Your task to perform on an android device: Search for pizza restaurants on Maps Image 0: 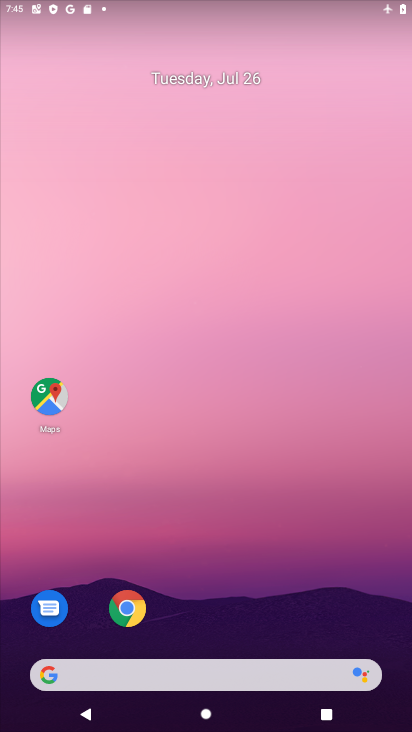
Step 0: drag from (253, 710) to (194, 385)
Your task to perform on an android device: Search for pizza restaurants on Maps Image 1: 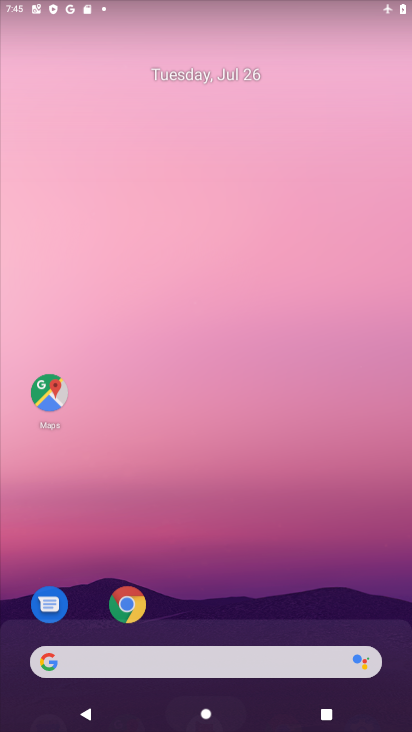
Step 1: drag from (276, 659) to (276, 285)
Your task to perform on an android device: Search for pizza restaurants on Maps Image 2: 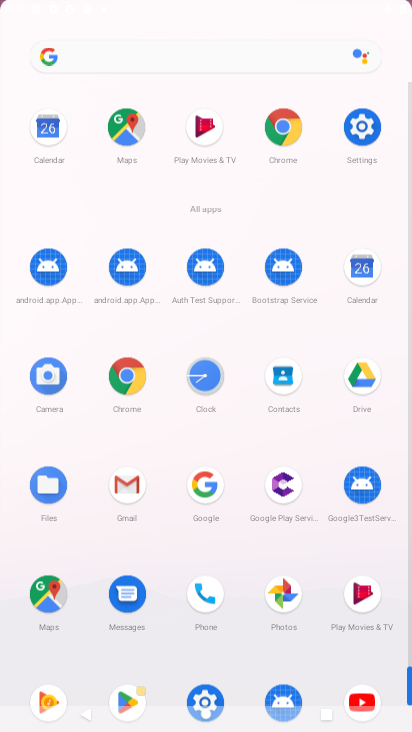
Step 2: drag from (291, 644) to (281, 171)
Your task to perform on an android device: Search for pizza restaurants on Maps Image 3: 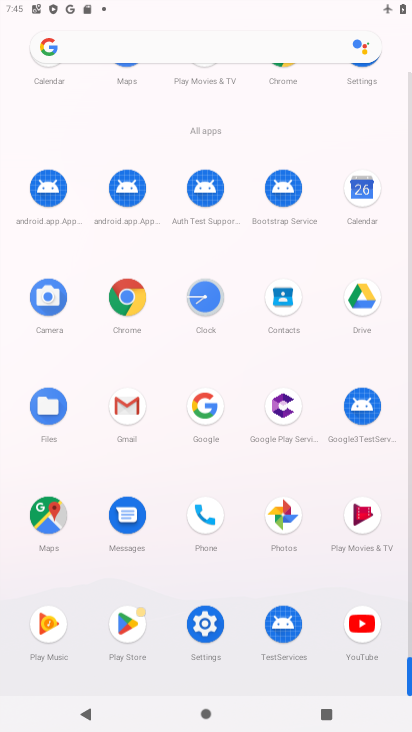
Step 3: drag from (245, 528) to (239, 280)
Your task to perform on an android device: Search for pizza restaurants on Maps Image 4: 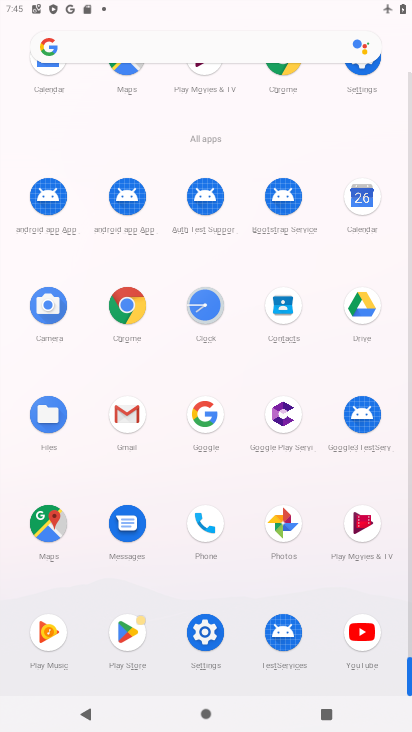
Step 4: click (37, 531)
Your task to perform on an android device: Search for pizza restaurants on Maps Image 5: 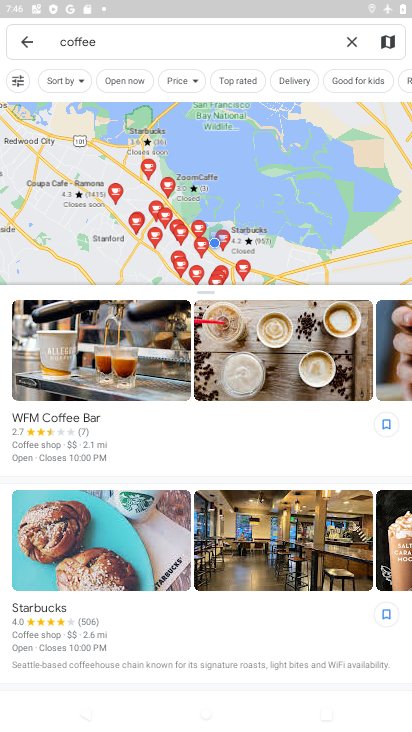
Step 5: click (102, 43)
Your task to perform on an android device: Search for pizza restaurants on Maps Image 6: 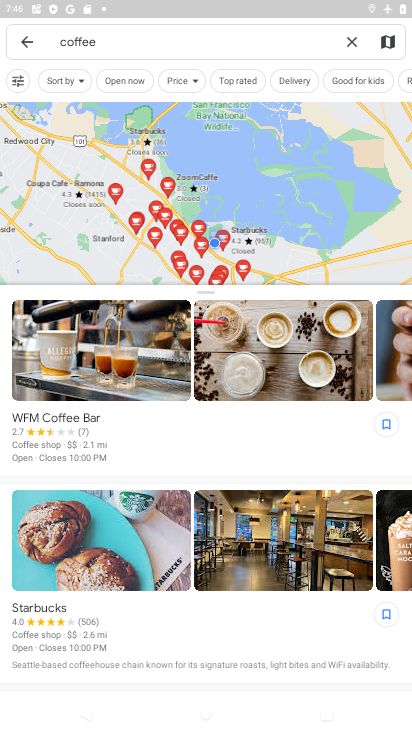
Step 6: click (107, 34)
Your task to perform on an android device: Search for pizza restaurants on Maps Image 7: 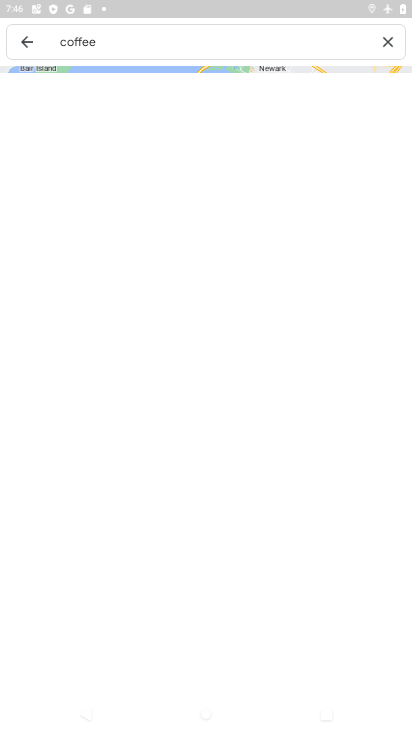
Step 7: click (108, 34)
Your task to perform on an android device: Search for pizza restaurants on Maps Image 8: 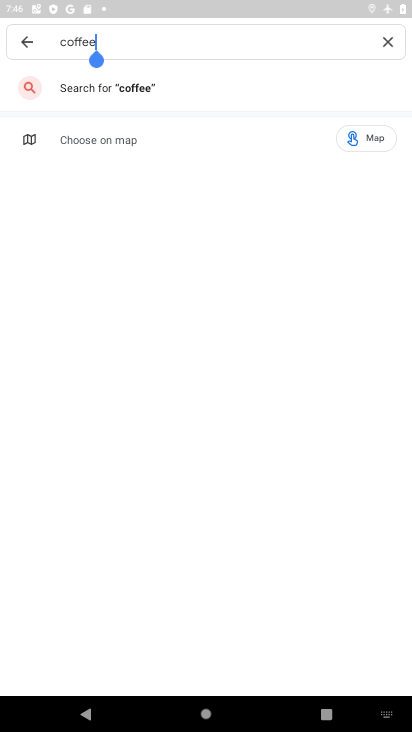
Step 8: click (396, 38)
Your task to perform on an android device: Search for pizza restaurants on Maps Image 9: 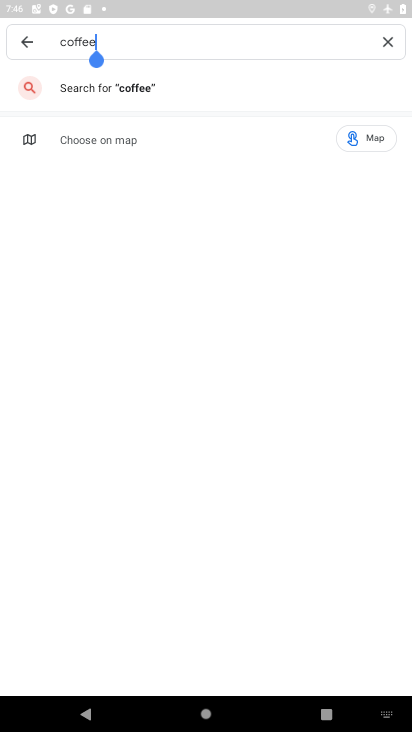
Step 9: click (394, 39)
Your task to perform on an android device: Search for pizza restaurants on Maps Image 10: 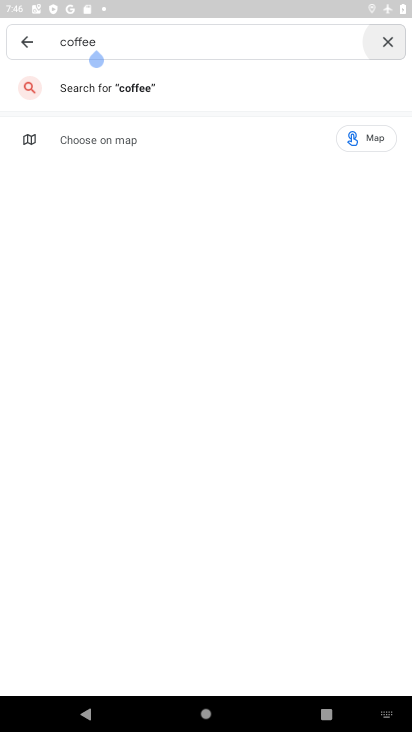
Step 10: click (393, 39)
Your task to perform on an android device: Search for pizza restaurants on Maps Image 11: 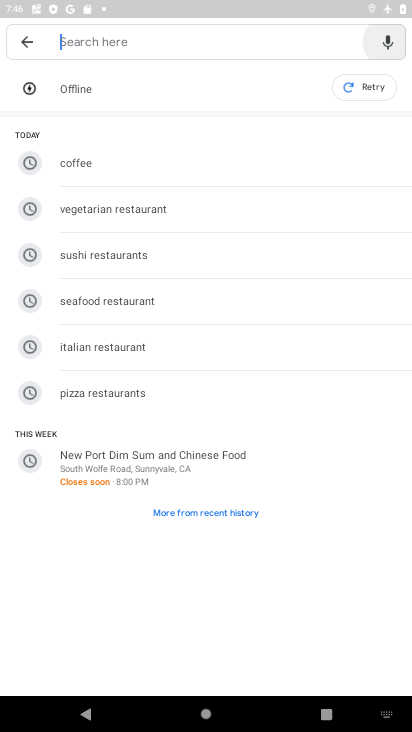
Step 11: click (392, 39)
Your task to perform on an android device: Search for pizza restaurants on Maps Image 12: 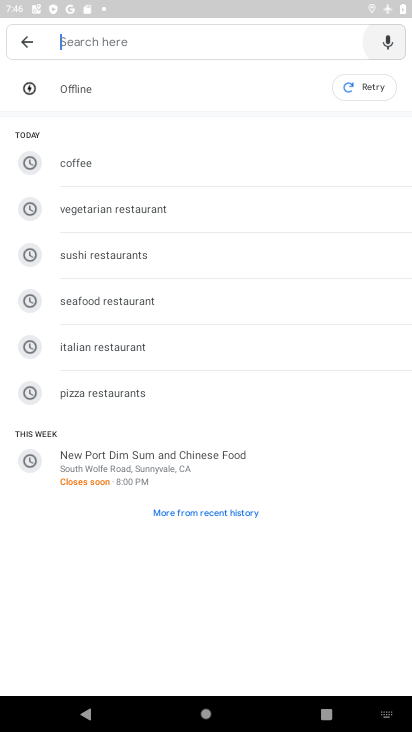
Step 12: click (392, 39)
Your task to perform on an android device: Search for pizza restaurants on Maps Image 13: 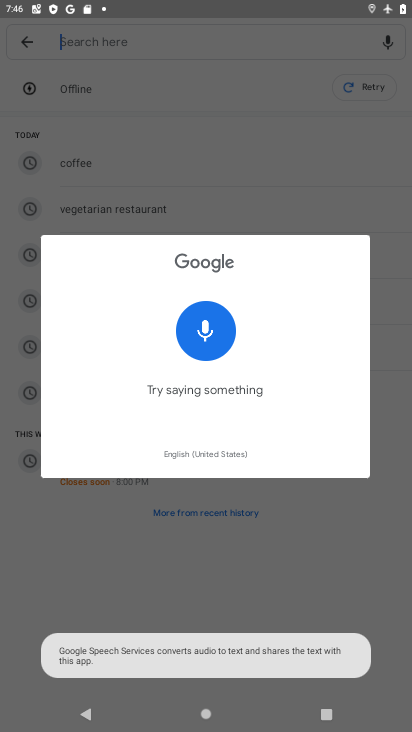
Step 13: click (142, 401)
Your task to perform on an android device: Search for pizza restaurants on Maps Image 14: 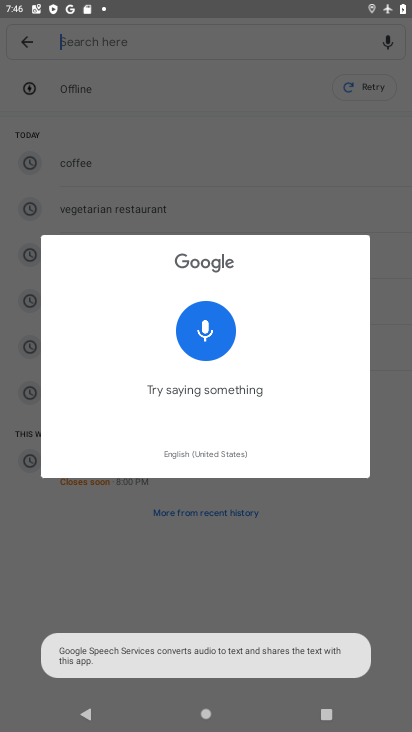
Step 14: click (208, 176)
Your task to perform on an android device: Search for pizza restaurants on Maps Image 15: 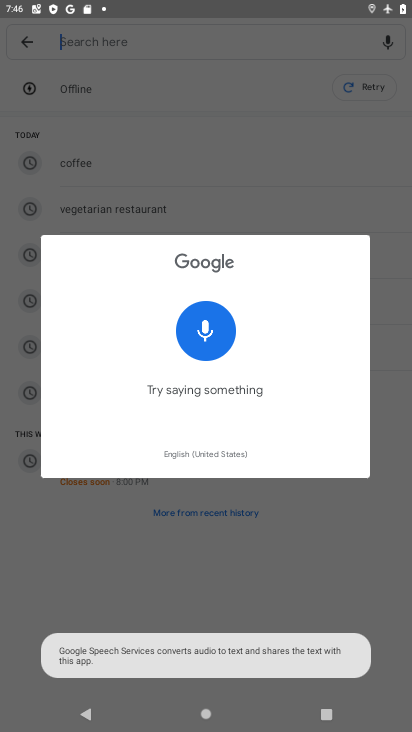
Step 15: click (208, 176)
Your task to perform on an android device: Search for pizza restaurants on Maps Image 16: 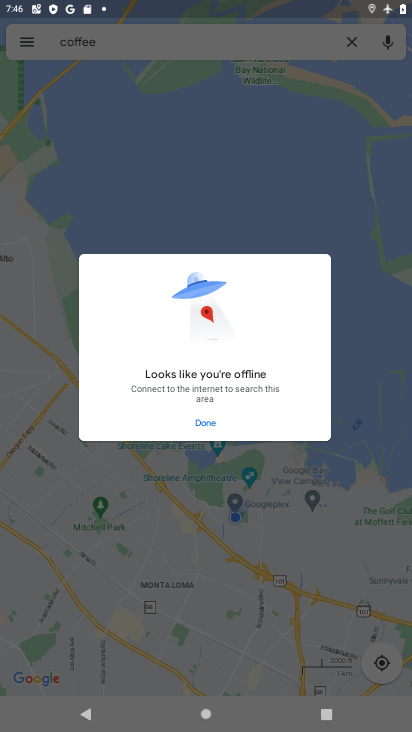
Step 16: click (86, 439)
Your task to perform on an android device: Search for pizza restaurants on Maps Image 17: 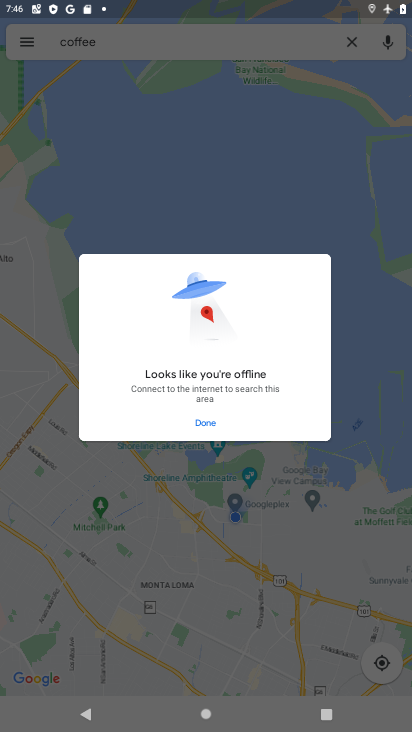
Step 17: task complete